Your task to perform on an android device: check out phone information Image 0: 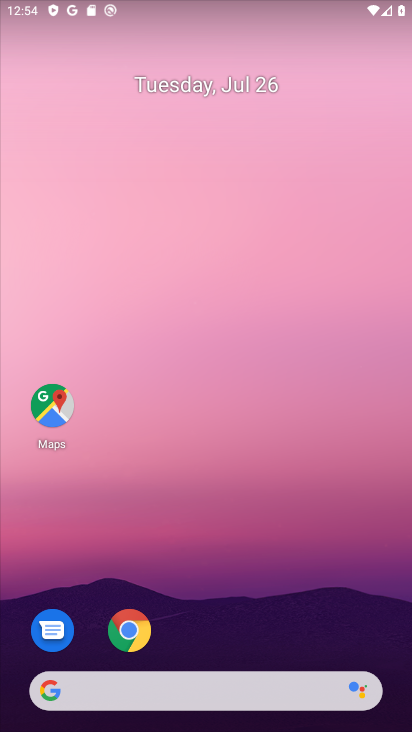
Step 0: drag from (260, 598) to (339, 0)
Your task to perform on an android device: check out phone information Image 1: 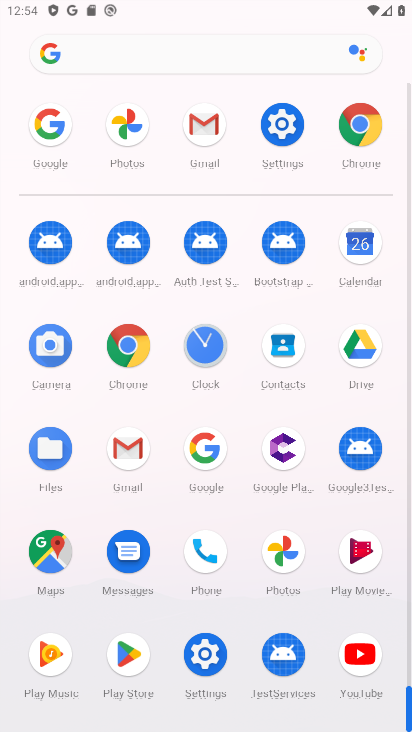
Step 1: click (307, 132)
Your task to perform on an android device: check out phone information Image 2: 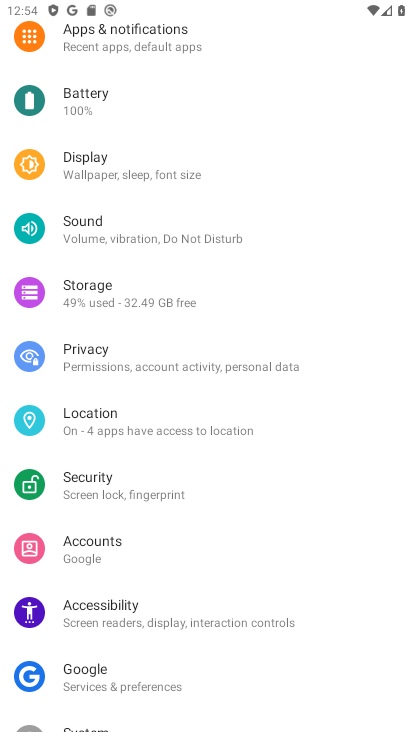
Step 2: drag from (209, 681) to (277, 162)
Your task to perform on an android device: check out phone information Image 3: 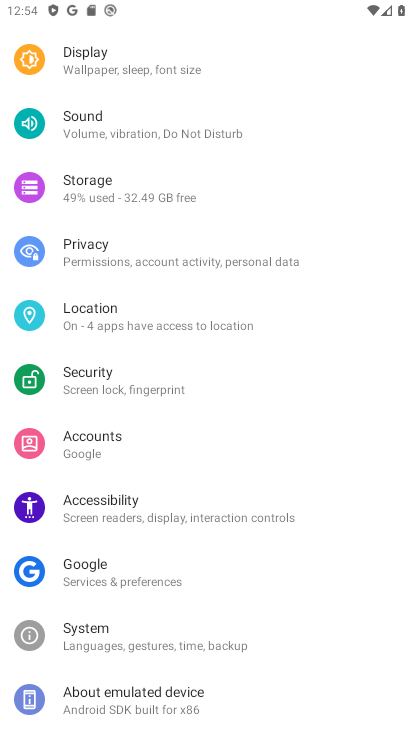
Step 3: click (128, 699)
Your task to perform on an android device: check out phone information Image 4: 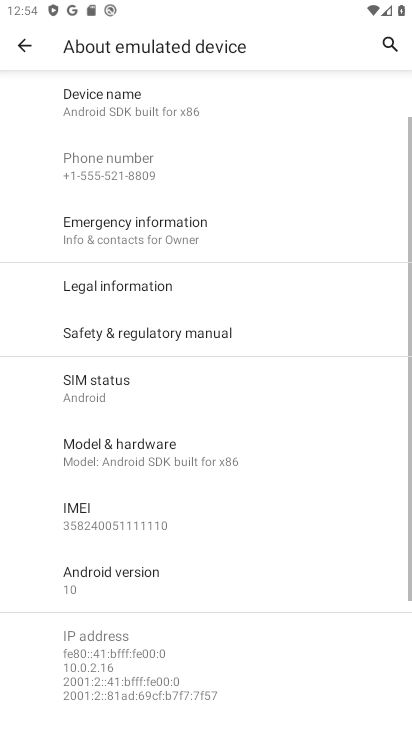
Step 4: task complete